Your task to perform on an android device: Is it going to rain today? Image 0: 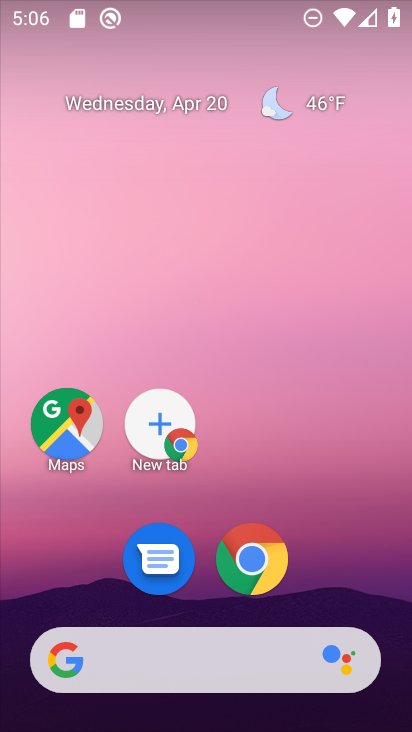
Step 0: click (246, 566)
Your task to perform on an android device: Is it going to rain today? Image 1: 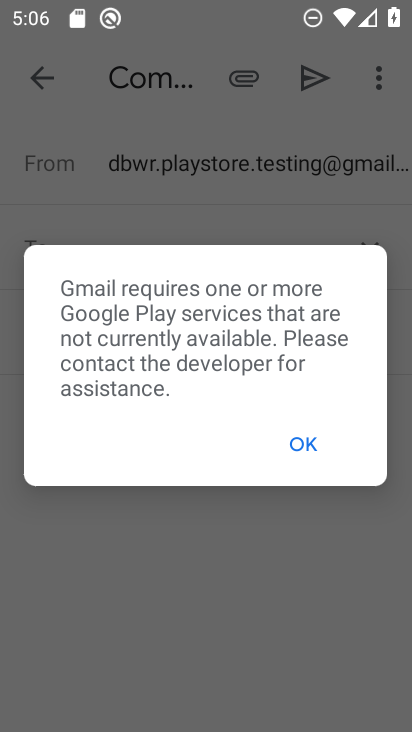
Step 1: click (292, 458)
Your task to perform on an android device: Is it going to rain today? Image 2: 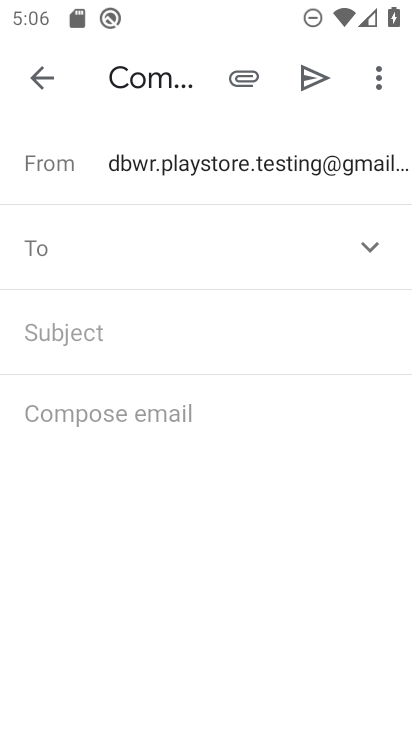
Step 2: press home button
Your task to perform on an android device: Is it going to rain today? Image 3: 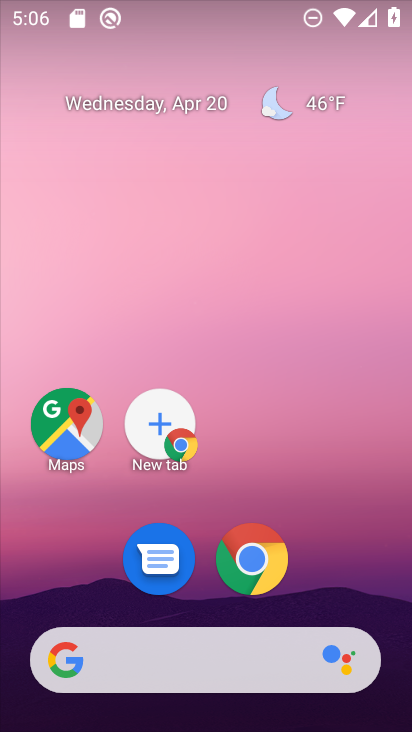
Step 3: drag from (336, 565) to (296, 73)
Your task to perform on an android device: Is it going to rain today? Image 4: 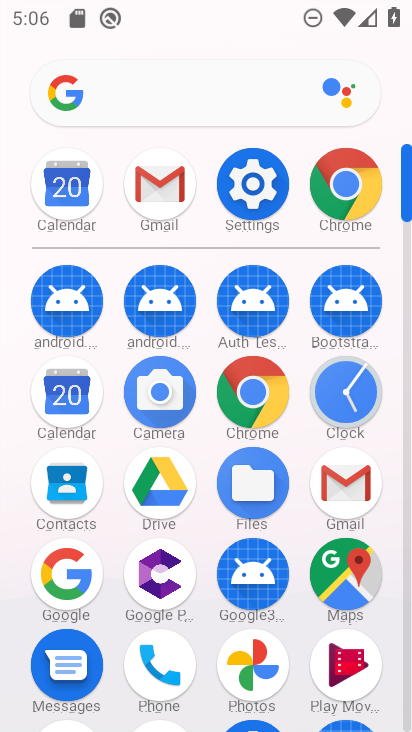
Step 4: click (160, 98)
Your task to perform on an android device: Is it going to rain today? Image 5: 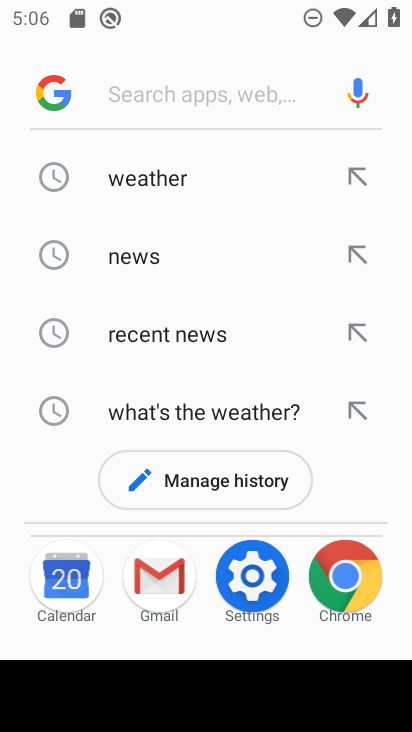
Step 5: click (159, 186)
Your task to perform on an android device: Is it going to rain today? Image 6: 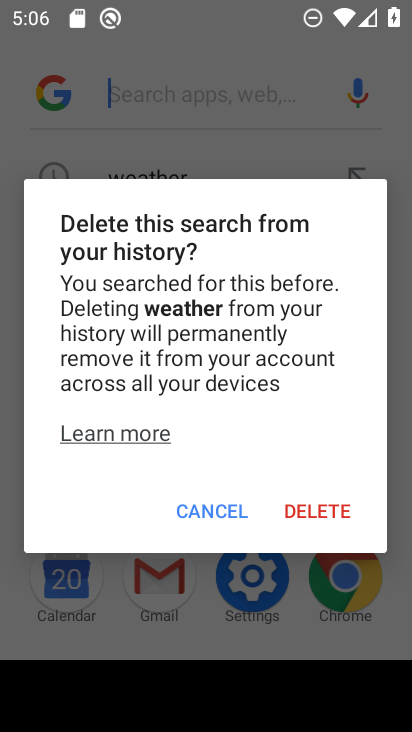
Step 6: click (202, 512)
Your task to perform on an android device: Is it going to rain today? Image 7: 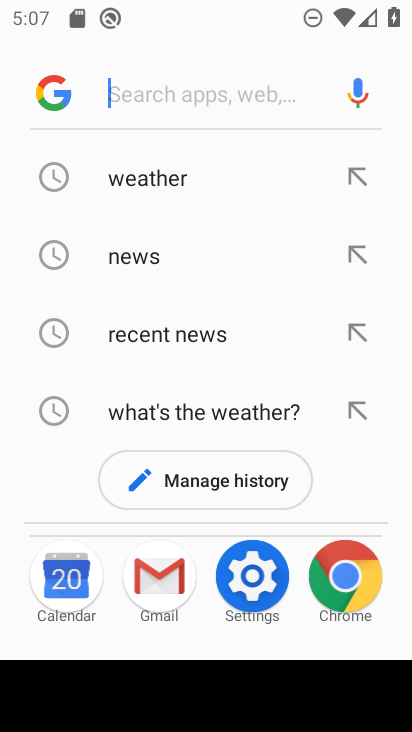
Step 7: click (144, 167)
Your task to perform on an android device: Is it going to rain today? Image 8: 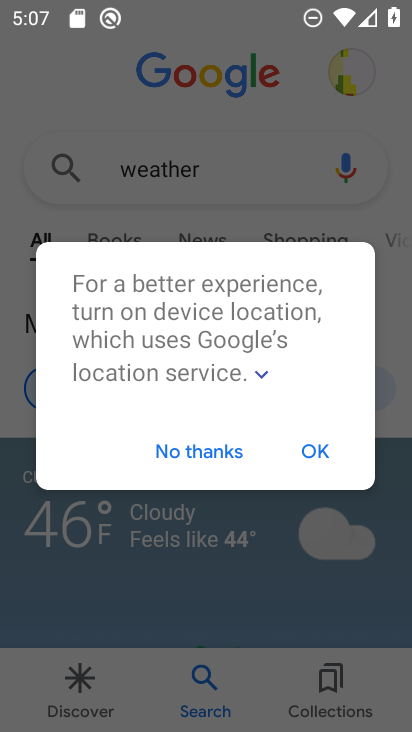
Step 8: click (194, 450)
Your task to perform on an android device: Is it going to rain today? Image 9: 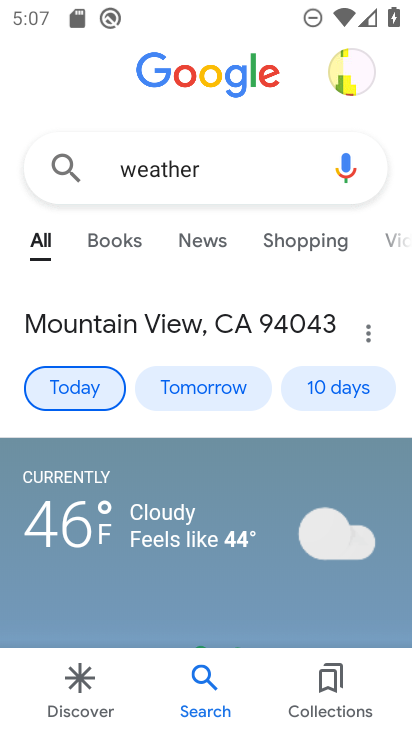
Step 9: task complete